Your task to perform on an android device: What's the price of the new iPhone Image 0: 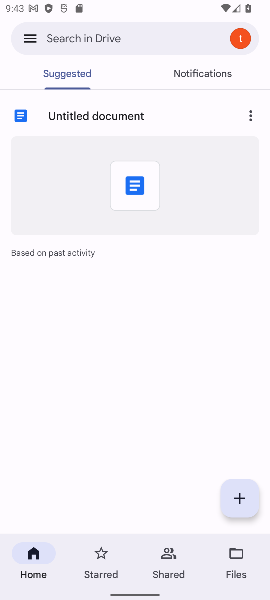
Step 0: press home button
Your task to perform on an android device: What's the price of the new iPhone Image 1: 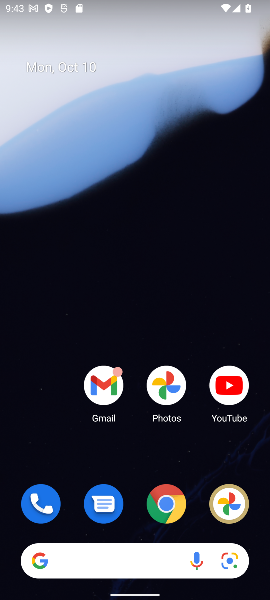
Step 1: click (165, 505)
Your task to perform on an android device: What's the price of the new iPhone Image 2: 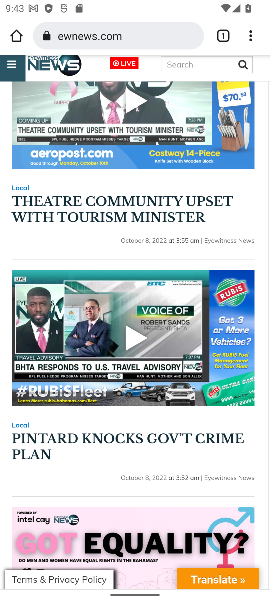
Step 2: click (130, 29)
Your task to perform on an android device: What's the price of the new iPhone Image 3: 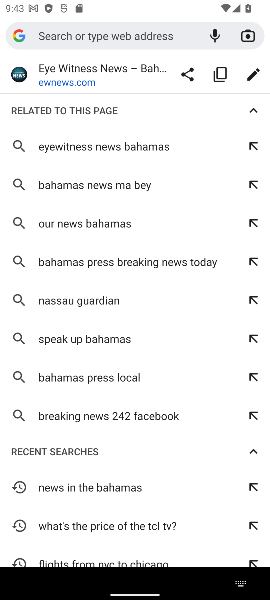
Step 3: type "price of the new iPhone"
Your task to perform on an android device: What's the price of the new iPhone Image 4: 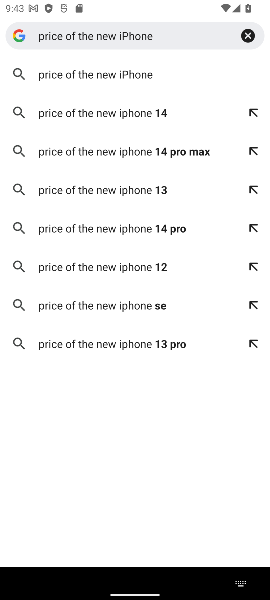
Step 4: click (66, 73)
Your task to perform on an android device: What's the price of the new iPhone Image 5: 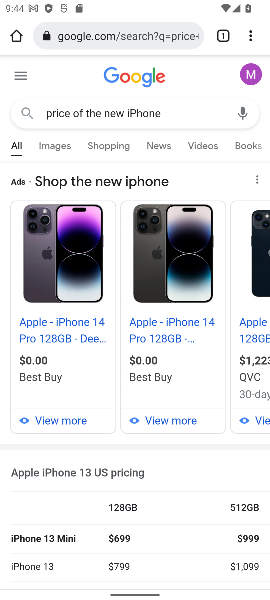
Step 5: drag from (163, 485) to (161, 225)
Your task to perform on an android device: What's the price of the new iPhone Image 6: 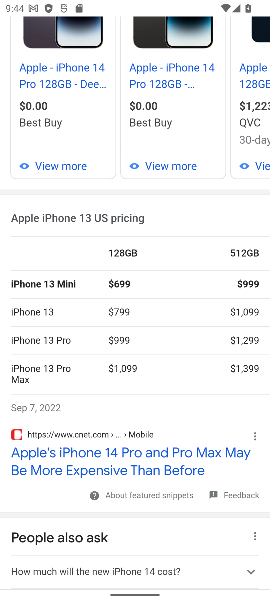
Step 6: click (41, 452)
Your task to perform on an android device: What's the price of the new iPhone Image 7: 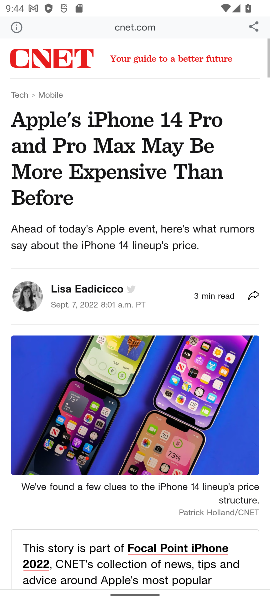
Step 7: task complete